Your task to perform on an android device: toggle wifi Image 0: 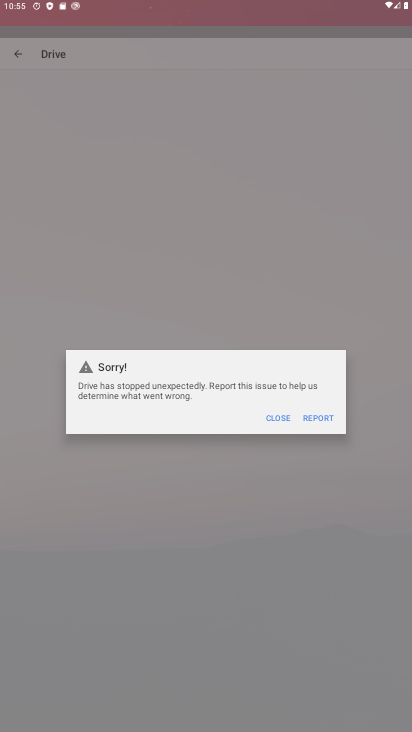
Step 0: drag from (236, 677) to (321, 149)
Your task to perform on an android device: toggle wifi Image 1: 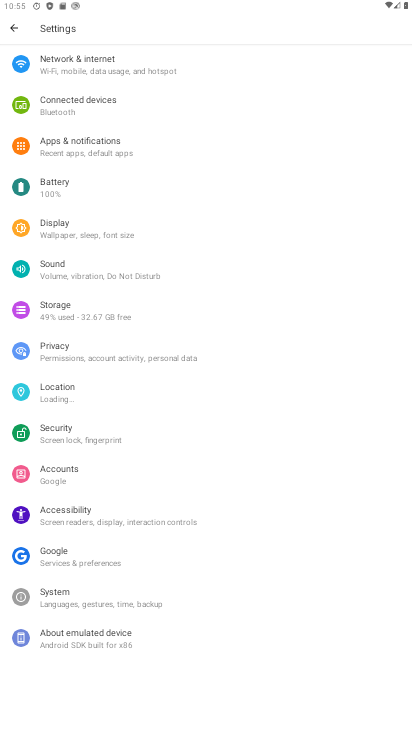
Step 1: click (182, 68)
Your task to perform on an android device: toggle wifi Image 2: 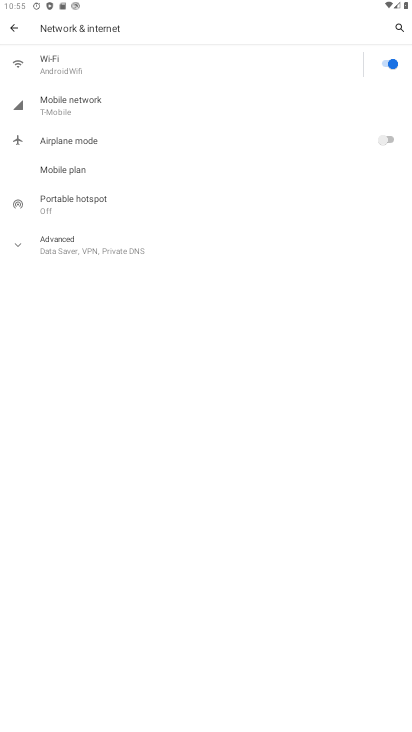
Step 2: click (383, 60)
Your task to perform on an android device: toggle wifi Image 3: 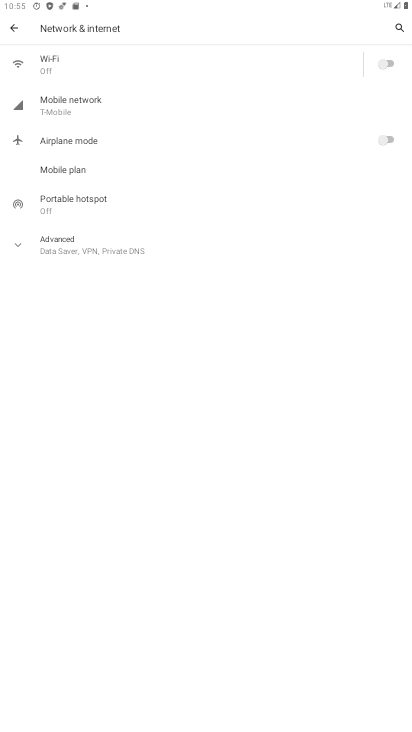
Step 3: task complete